Your task to perform on an android device: turn off wifi Image 0: 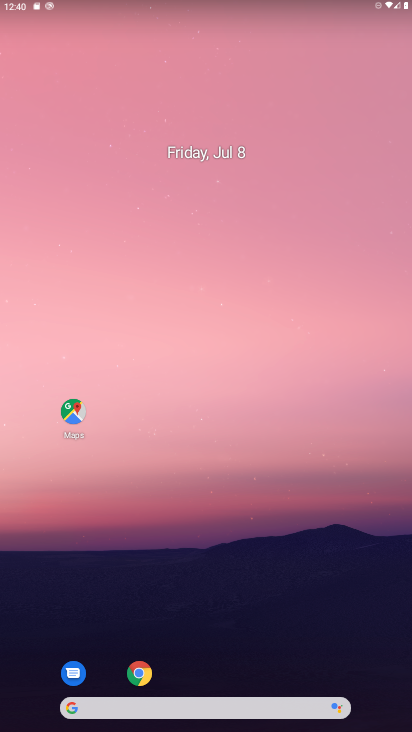
Step 0: drag from (366, 710) to (326, 178)
Your task to perform on an android device: turn off wifi Image 1: 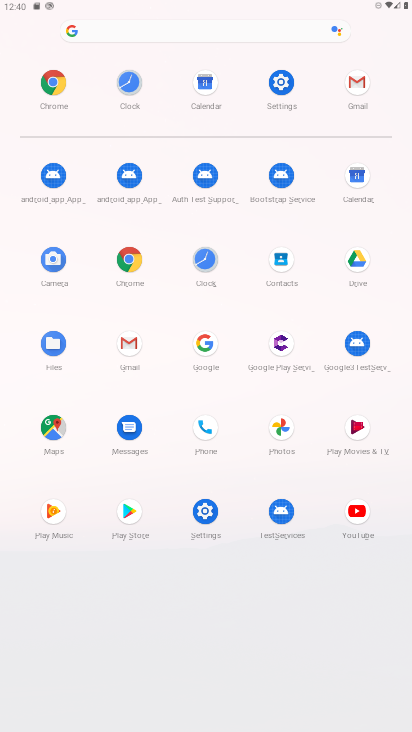
Step 1: click (290, 93)
Your task to perform on an android device: turn off wifi Image 2: 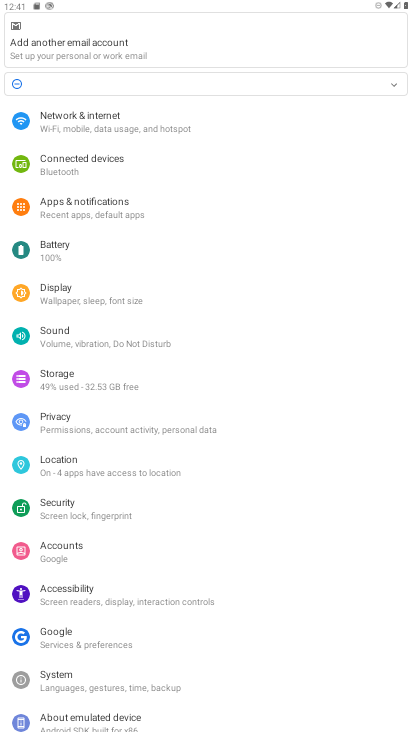
Step 2: click (82, 112)
Your task to perform on an android device: turn off wifi Image 3: 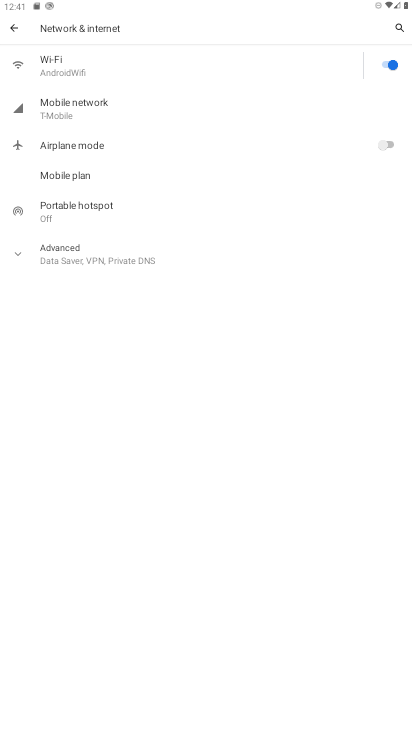
Step 3: click (212, 60)
Your task to perform on an android device: turn off wifi Image 4: 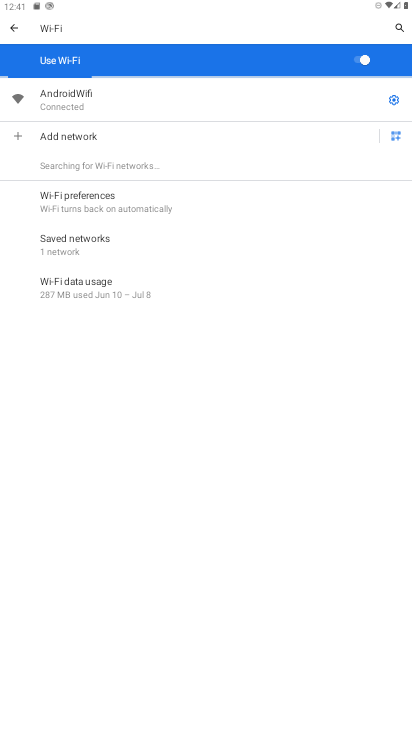
Step 4: click (389, 97)
Your task to perform on an android device: turn off wifi Image 5: 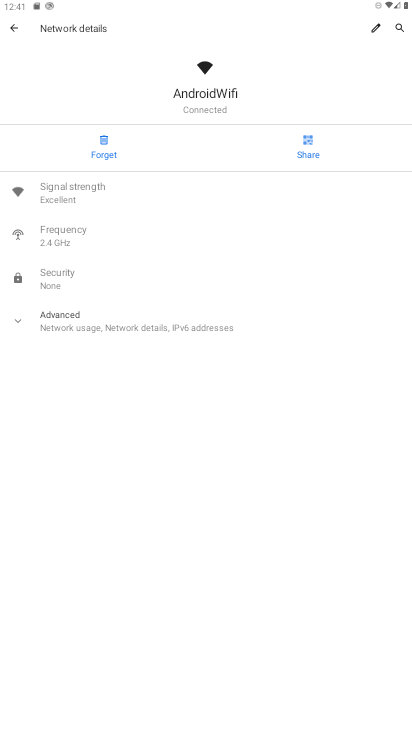
Step 5: task complete